Your task to perform on an android device: Go to Android settings Image 0: 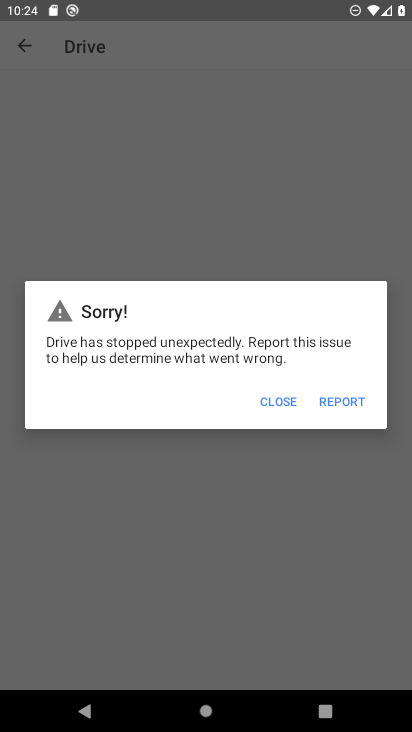
Step 0: press home button
Your task to perform on an android device: Go to Android settings Image 1: 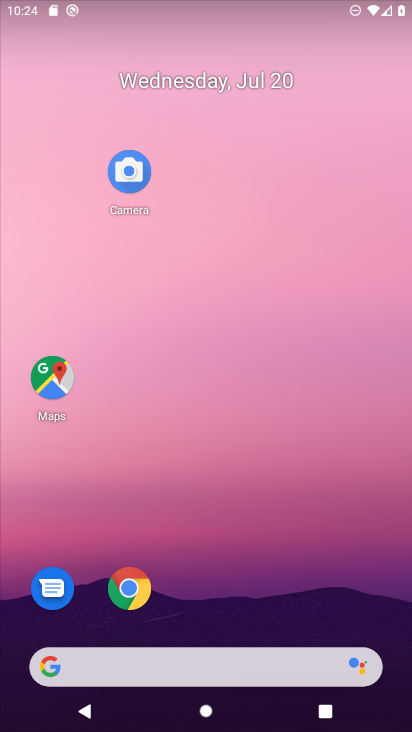
Step 1: drag from (308, 577) to (279, 63)
Your task to perform on an android device: Go to Android settings Image 2: 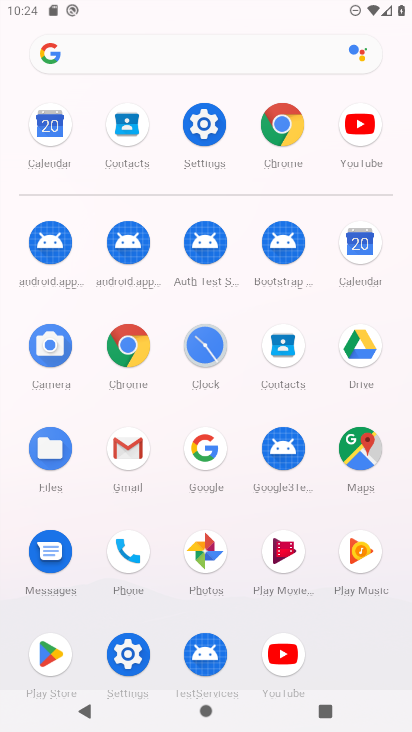
Step 2: click (197, 128)
Your task to perform on an android device: Go to Android settings Image 3: 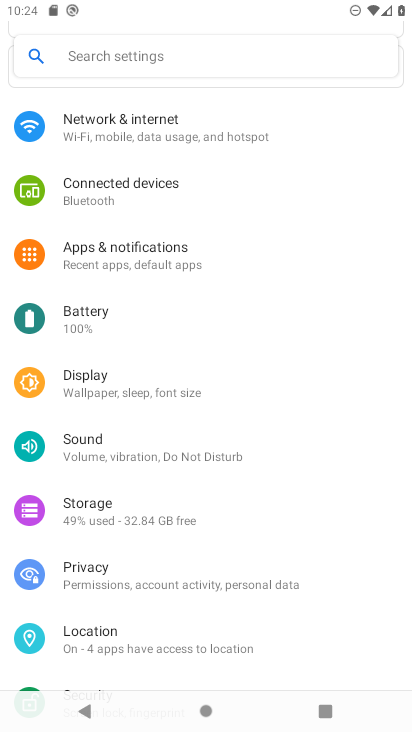
Step 3: task complete